Your task to perform on an android device: Open calendar and show me the second week of next month Image 0: 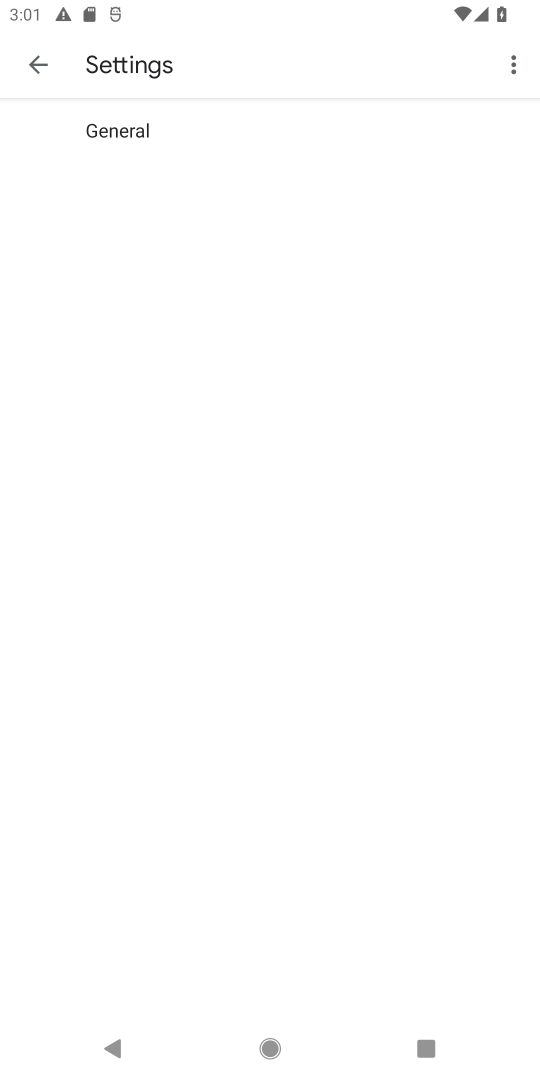
Step 0: click (34, 57)
Your task to perform on an android device: Open calendar and show me the second week of next month Image 1: 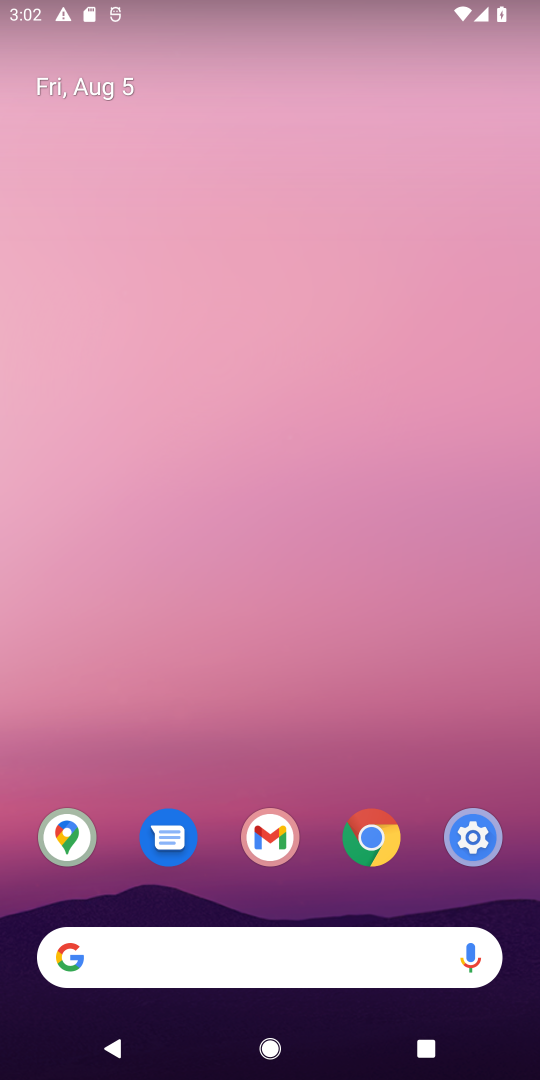
Step 1: press back button
Your task to perform on an android device: Open calendar and show me the second week of next month Image 2: 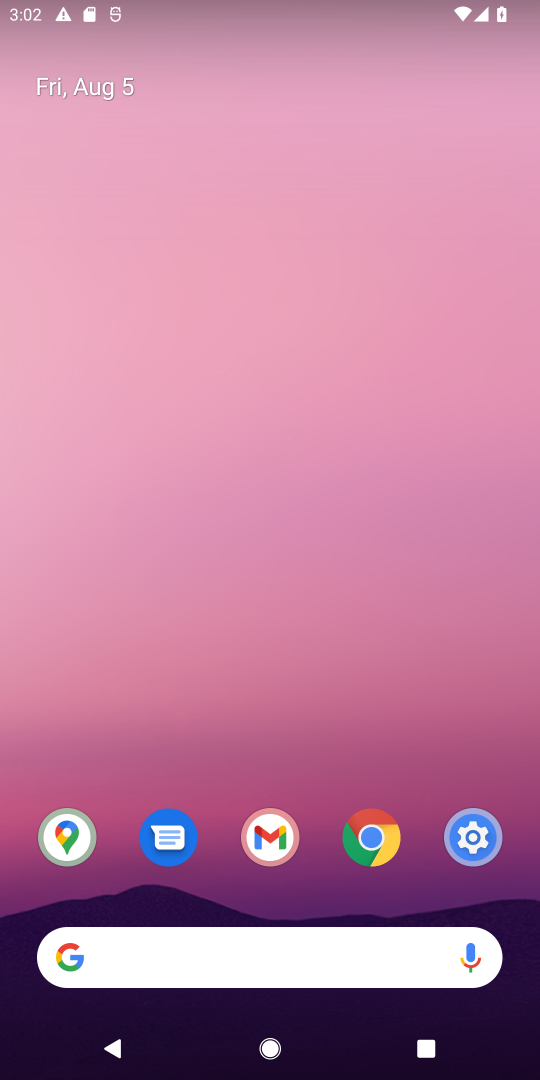
Step 2: drag from (299, 982) to (187, 82)
Your task to perform on an android device: Open calendar and show me the second week of next month Image 3: 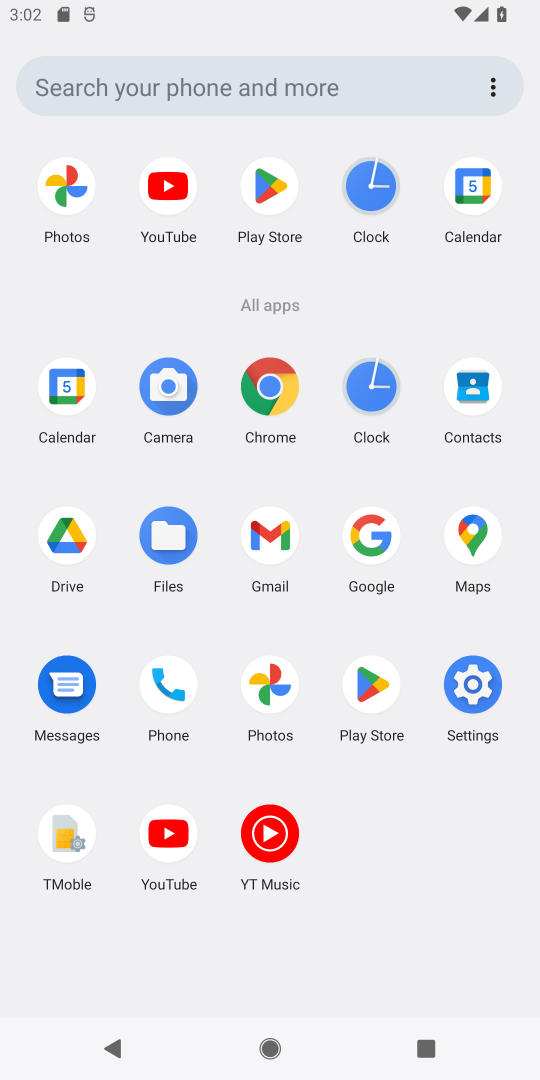
Step 3: click (476, 191)
Your task to perform on an android device: Open calendar and show me the second week of next month Image 4: 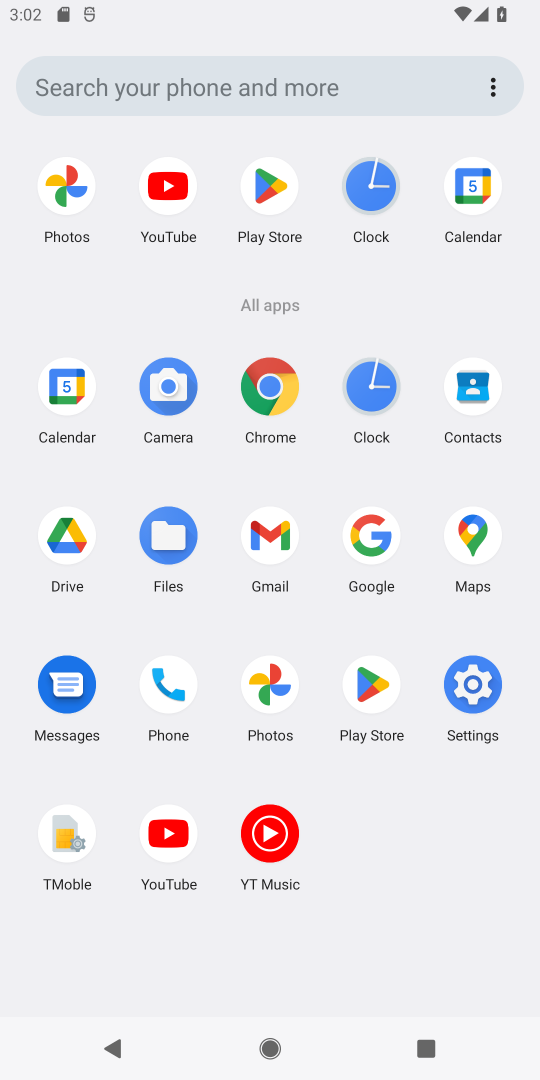
Step 4: click (477, 189)
Your task to perform on an android device: Open calendar and show me the second week of next month Image 5: 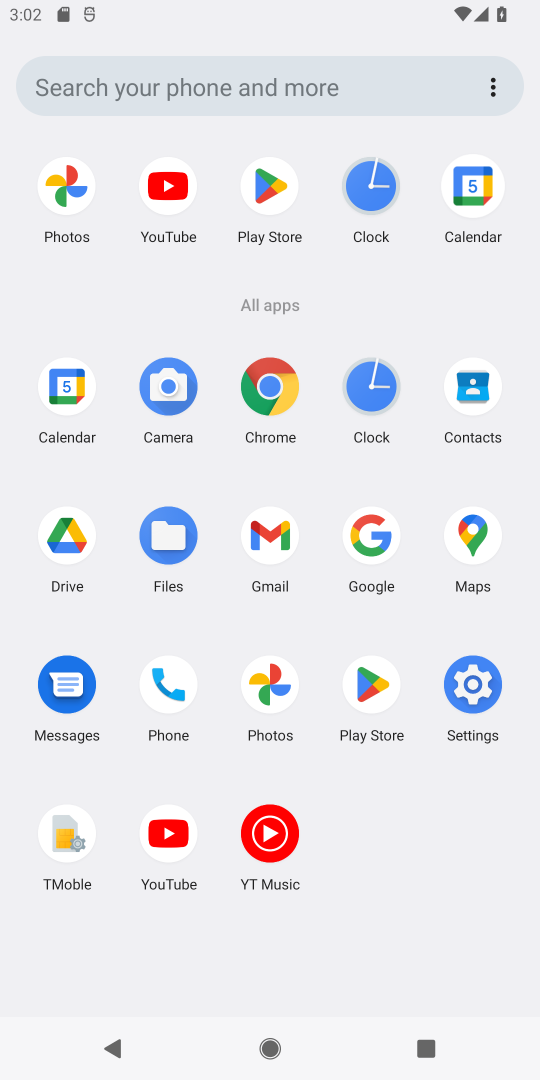
Step 5: click (478, 187)
Your task to perform on an android device: Open calendar and show me the second week of next month Image 6: 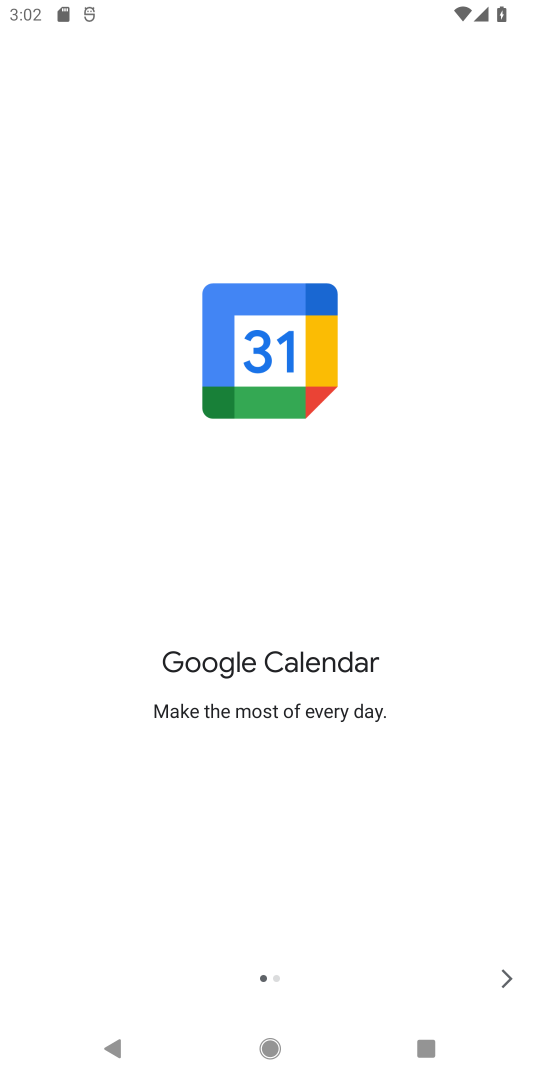
Step 6: click (509, 979)
Your task to perform on an android device: Open calendar and show me the second week of next month Image 7: 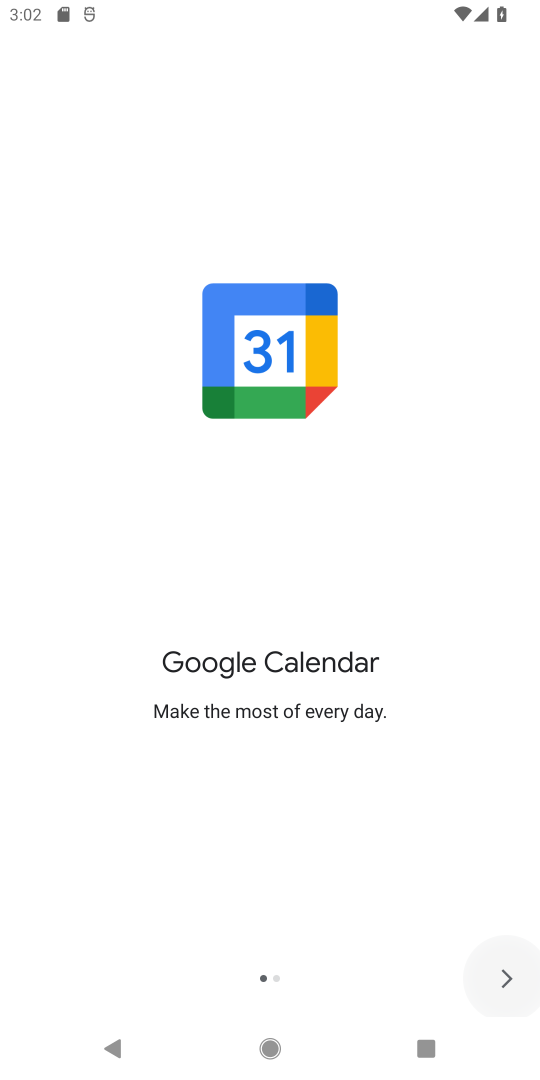
Step 7: click (505, 980)
Your task to perform on an android device: Open calendar and show me the second week of next month Image 8: 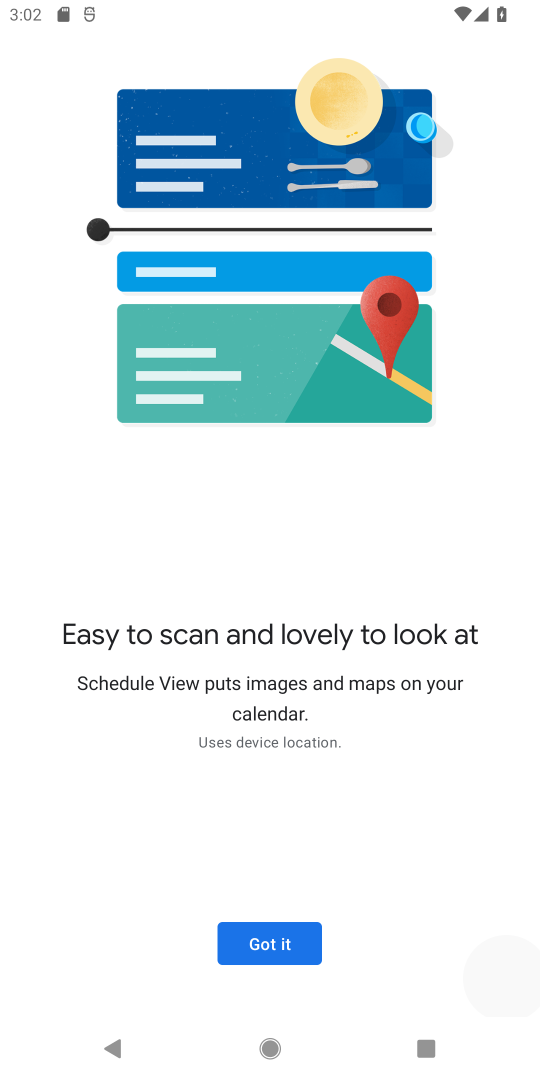
Step 8: click (303, 942)
Your task to perform on an android device: Open calendar and show me the second week of next month Image 9: 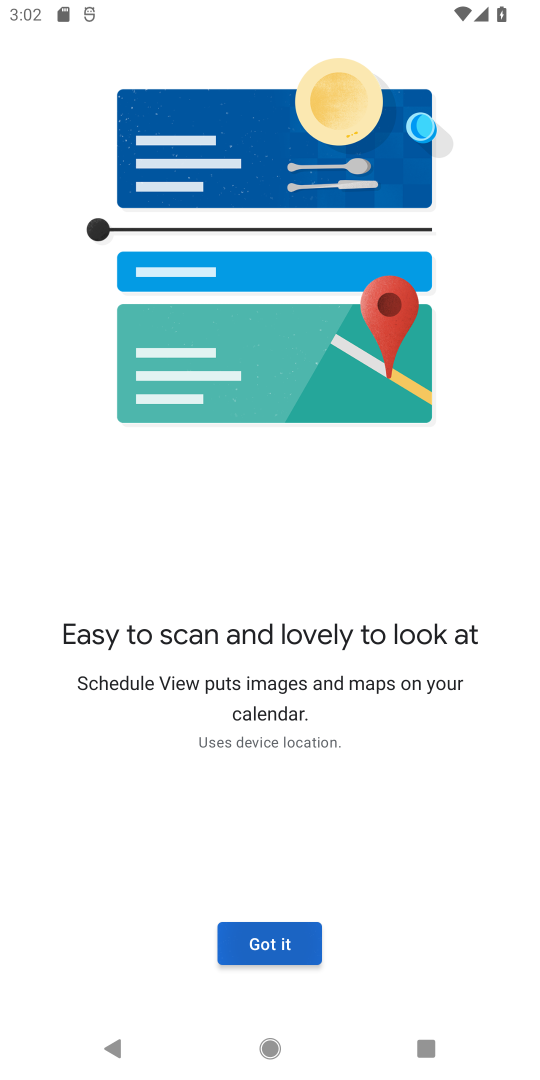
Step 9: click (300, 927)
Your task to perform on an android device: Open calendar and show me the second week of next month Image 10: 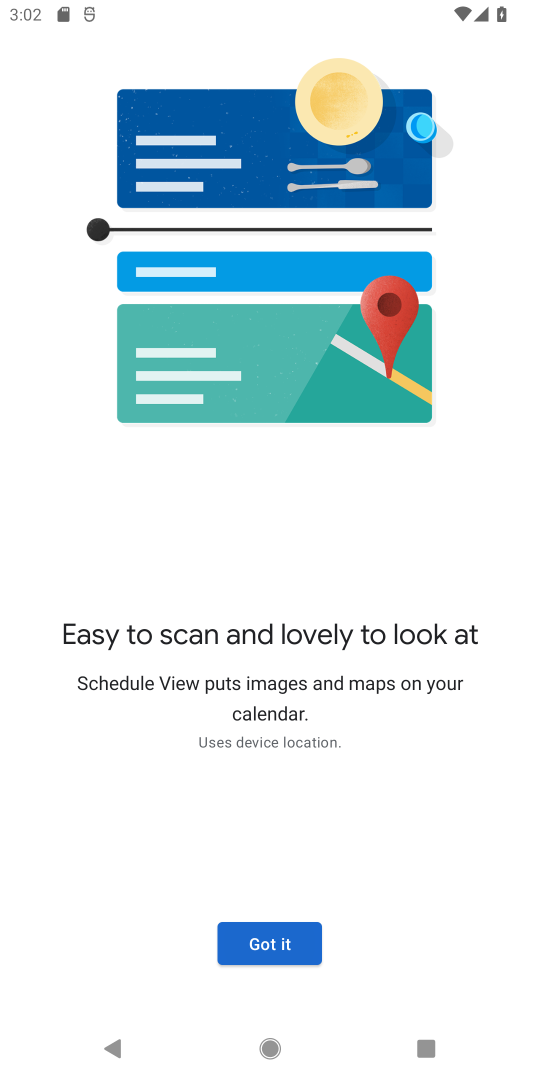
Step 10: click (298, 927)
Your task to perform on an android device: Open calendar and show me the second week of next month Image 11: 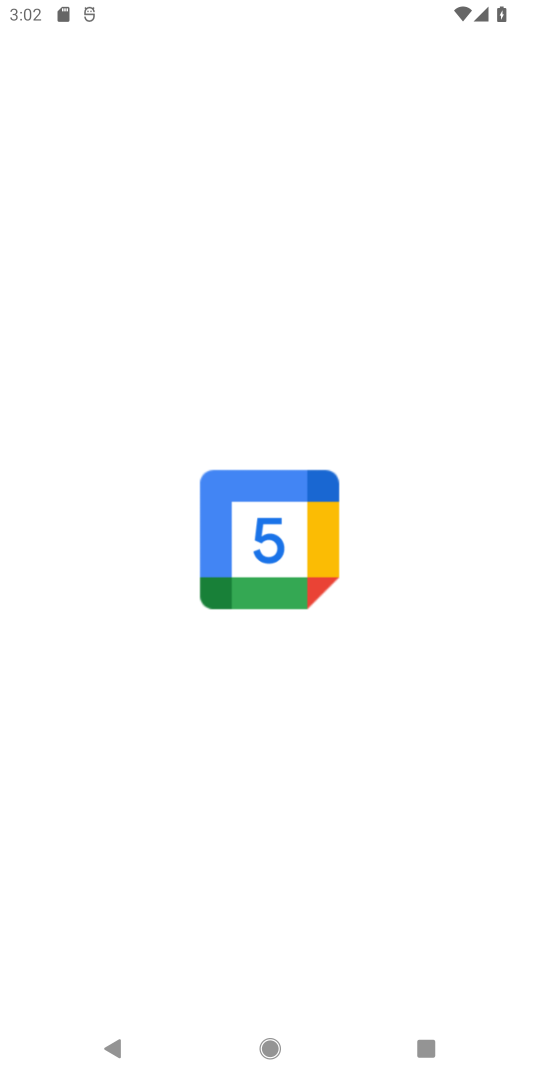
Step 11: click (275, 523)
Your task to perform on an android device: Open calendar and show me the second week of next month Image 12: 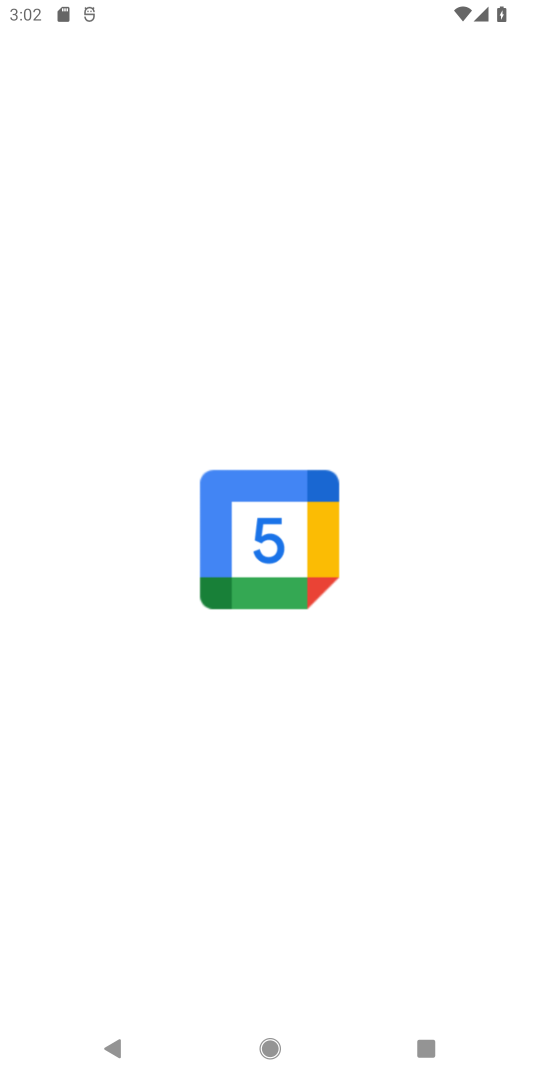
Step 12: click (276, 541)
Your task to perform on an android device: Open calendar and show me the second week of next month Image 13: 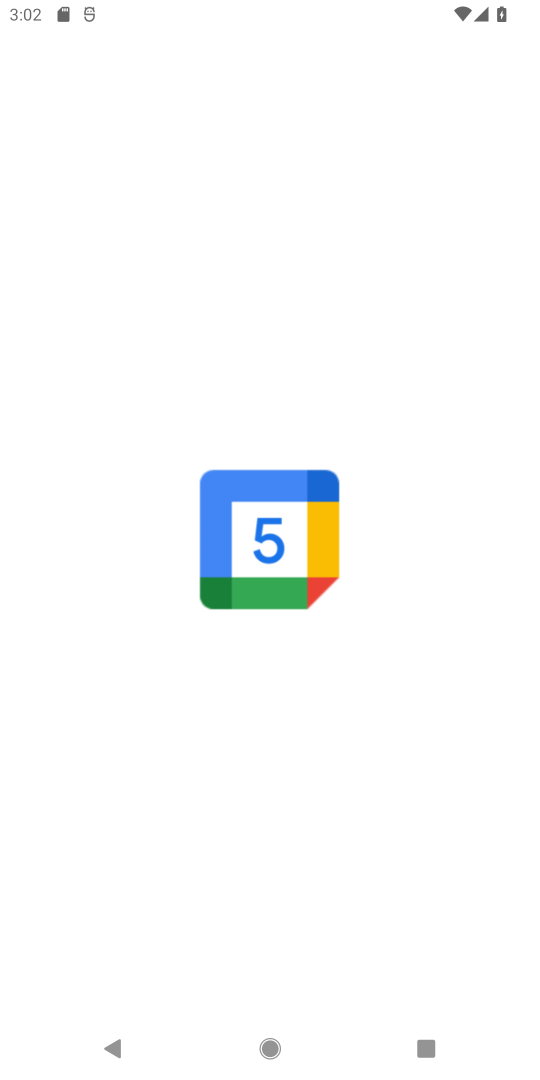
Step 13: click (272, 530)
Your task to perform on an android device: Open calendar and show me the second week of next month Image 14: 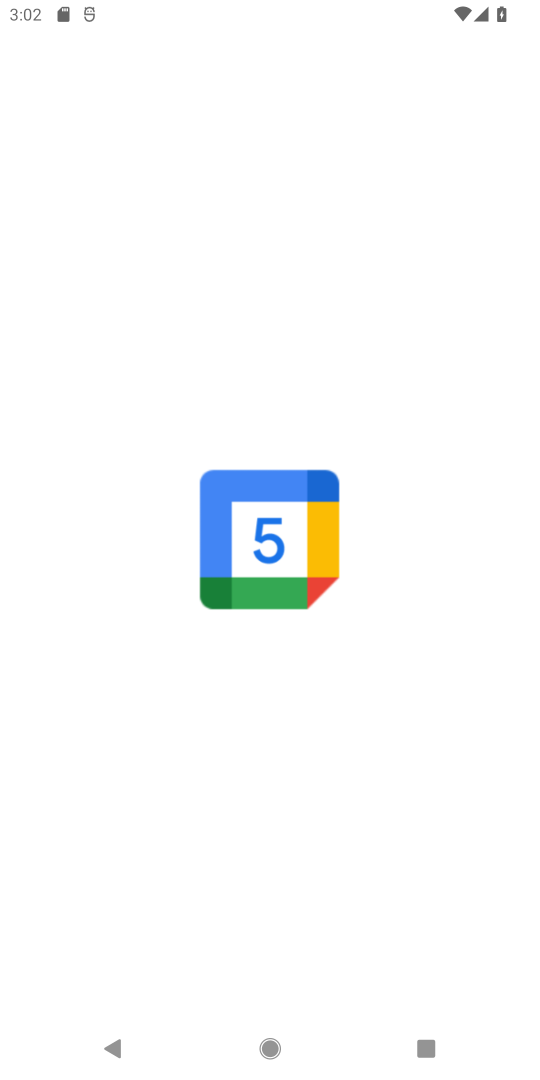
Step 14: click (274, 528)
Your task to perform on an android device: Open calendar and show me the second week of next month Image 15: 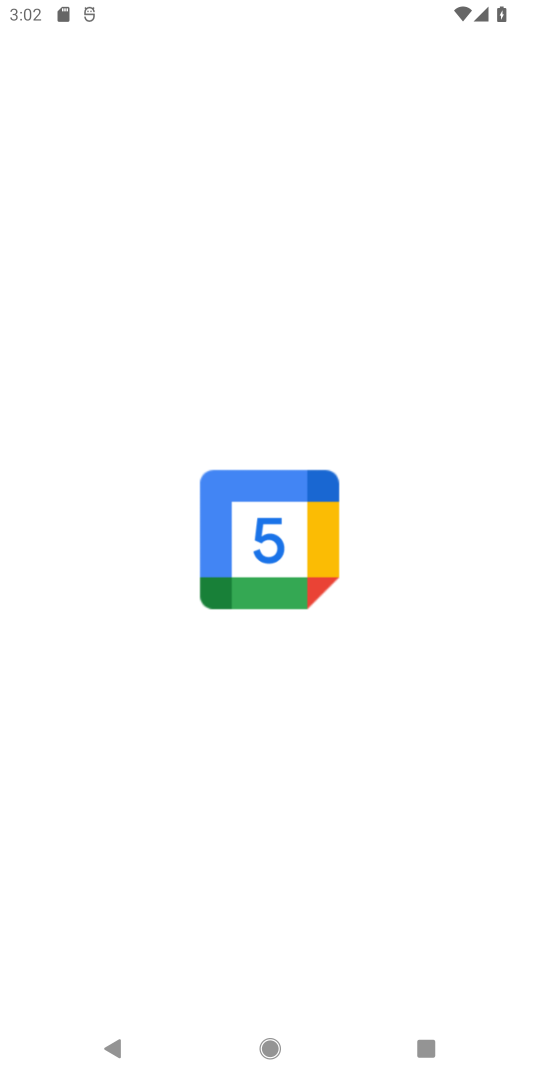
Step 15: click (271, 531)
Your task to perform on an android device: Open calendar and show me the second week of next month Image 16: 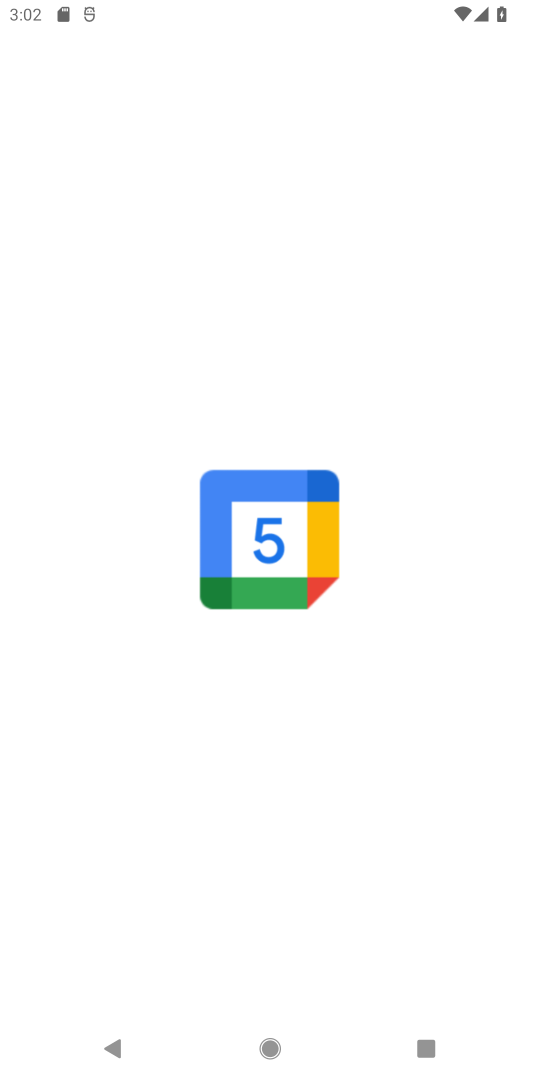
Step 16: click (294, 524)
Your task to perform on an android device: Open calendar and show me the second week of next month Image 17: 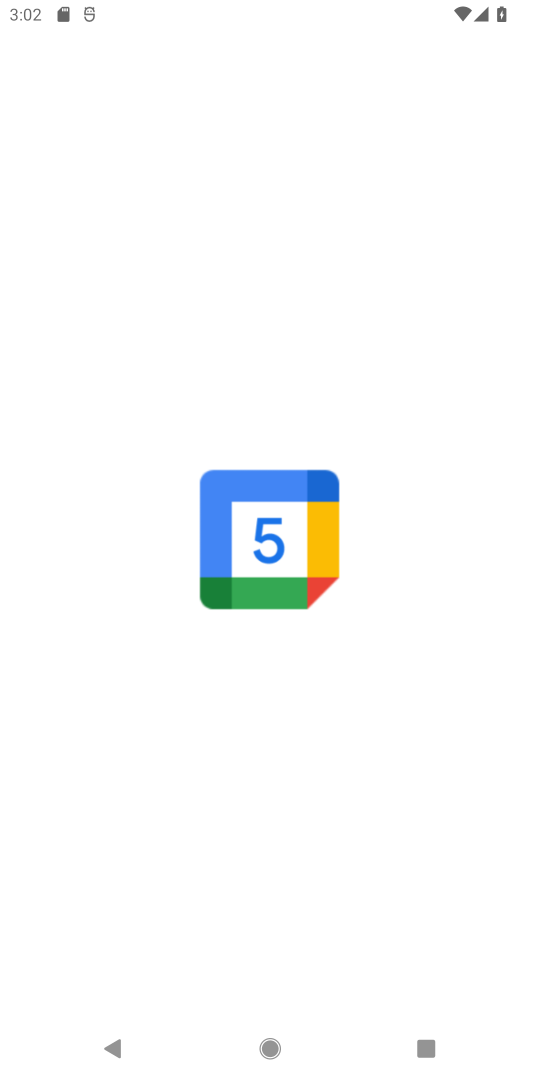
Step 17: click (294, 524)
Your task to perform on an android device: Open calendar and show me the second week of next month Image 18: 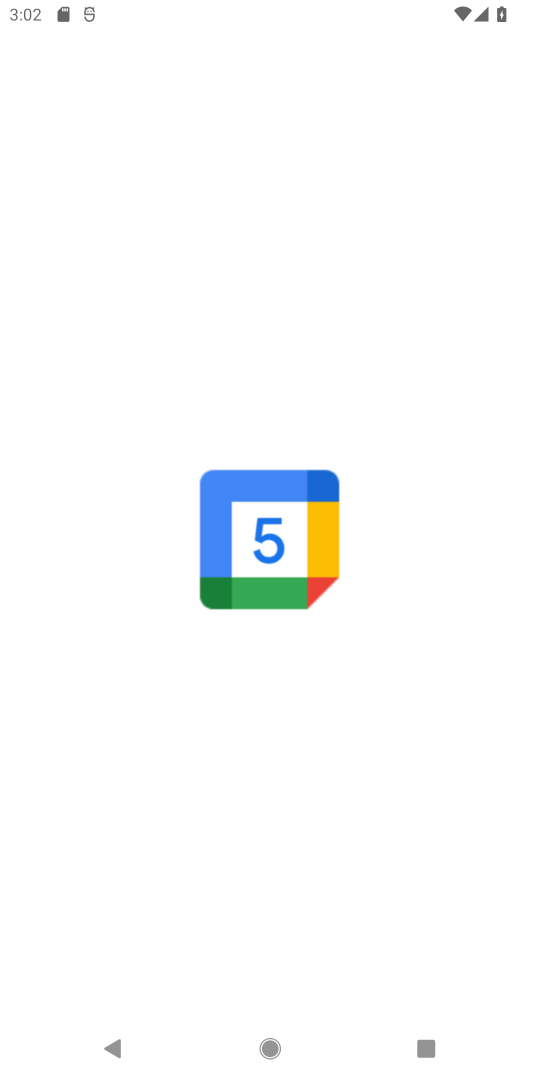
Step 18: click (294, 524)
Your task to perform on an android device: Open calendar and show me the second week of next month Image 19: 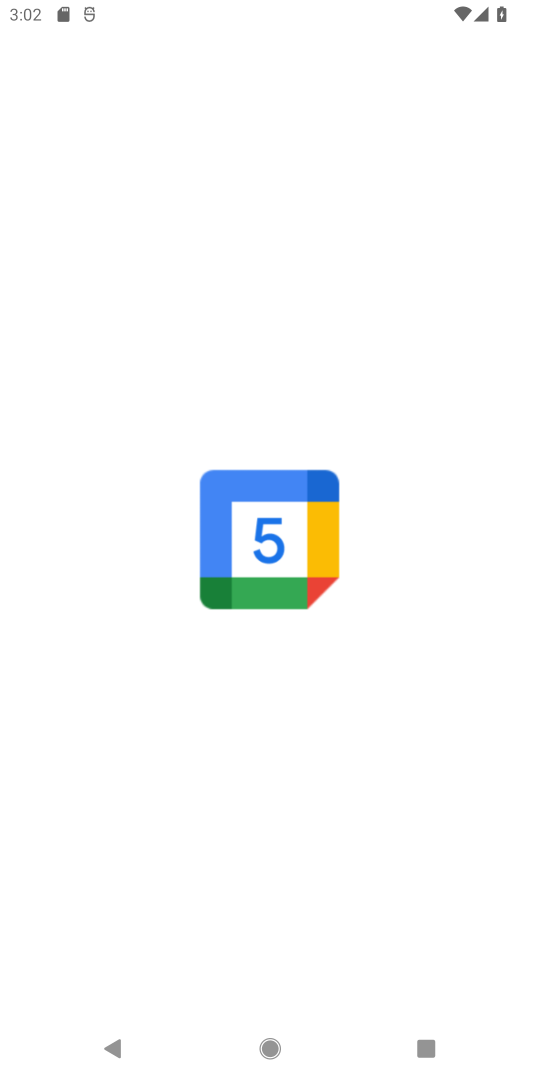
Step 19: drag from (296, 524) to (430, 819)
Your task to perform on an android device: Open calendar and show me the second week of next month Image 20: 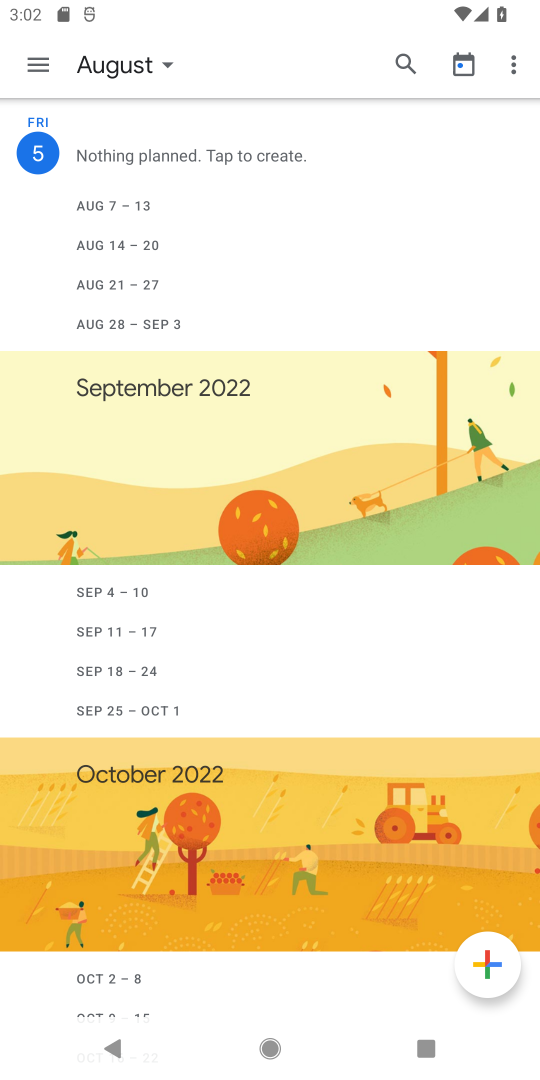
Step 20: click (167, 65)
Your task to perform on an android device: Open calendar and show me the second week of next month Image 21: 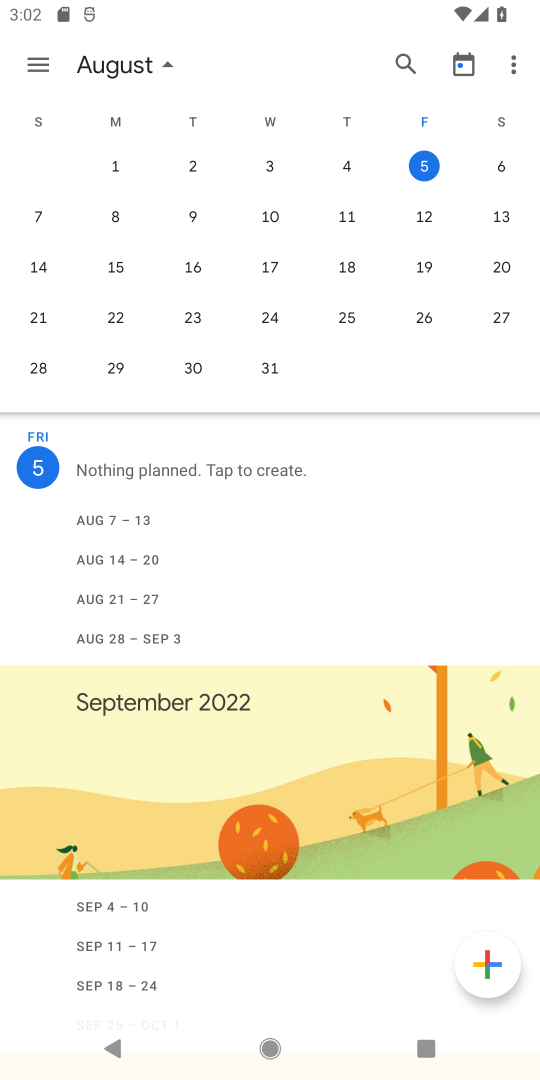
Step 21: task complete